Your task to perform on an android device: change the upload size in google photos Image 0: 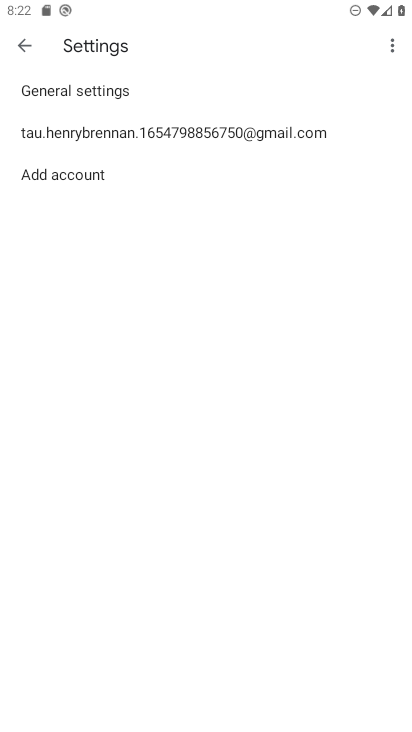
Step 0: press home button
Your task to perform on an android device: change the upload size in google photos Image 1: 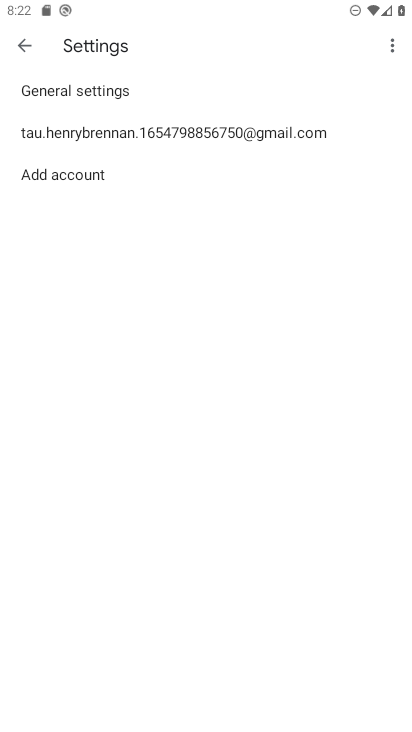
Step 1: drag from (343, 686) to (182, 76)
Your task to perform on an android device: change the upload size in google photos Image 2: 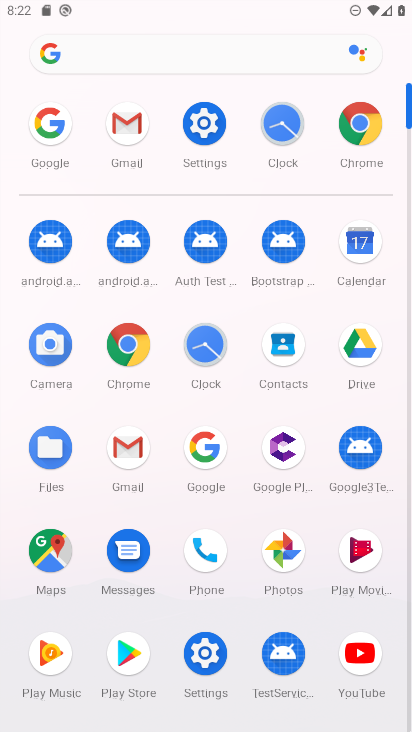
Step 2: click (275, 559)
Your task to perform on an android device: change the upload size in google photos Image 3: 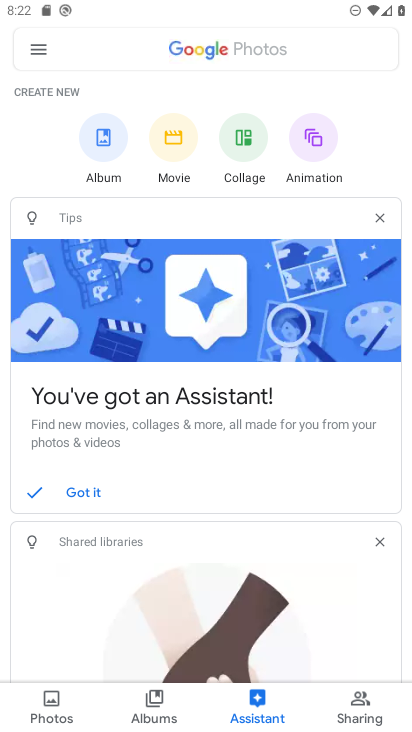
Step 3: click (40, 44)
Your task to perform on an android device: change the upload size in google photos Image 4: 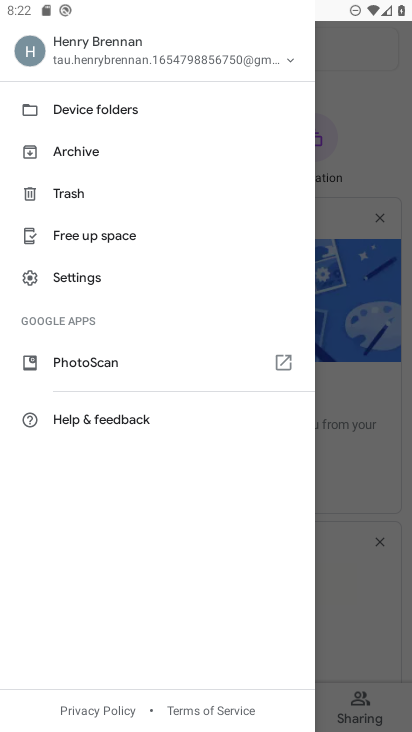
Step 4: click (97, 278)
Your task to perform on an android device: change the upload size in google photos Image 5: 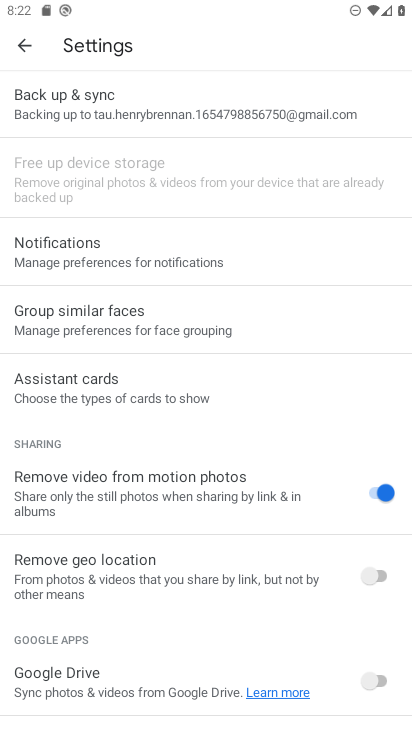
Step 5: click (118, 111)
Your task to perform on an android device: change the upload size in google photos Image 6: 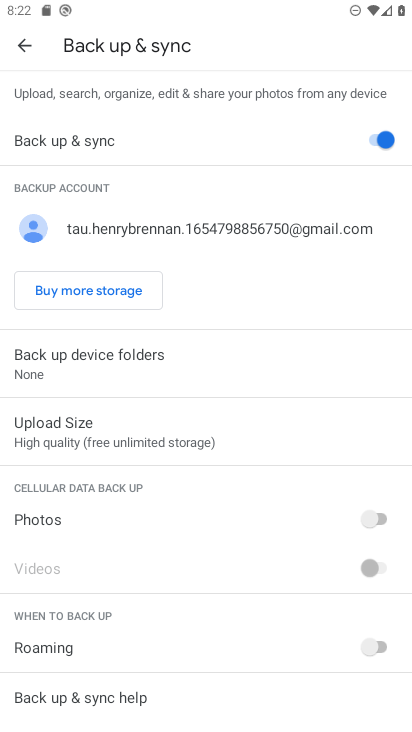
Step 6: click (115, 427)
Your task to perform on an android device: change the upload size in google photos Image 7: 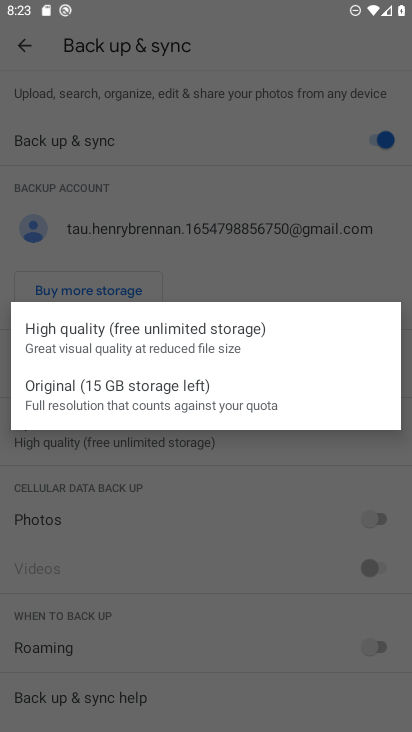
Step 7: click (101, 384)
Your task to perform on an android device: change the upload size in google photos Image 8: 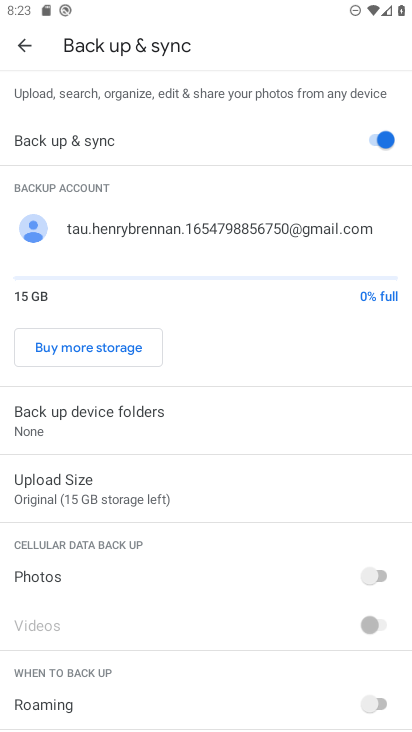
Step 8: task complete